Your task to perform on an android device: move an email to a new category in the gmail app Image 0: 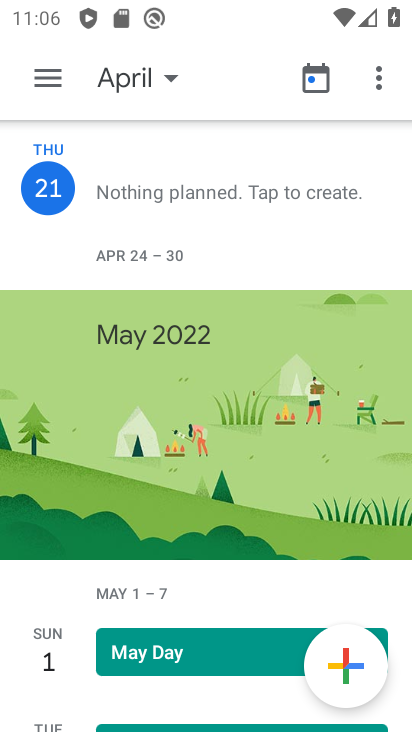
Step 0: press home button
Your task to perform on an android device: move an email to a new category in the gmail app Image 1: 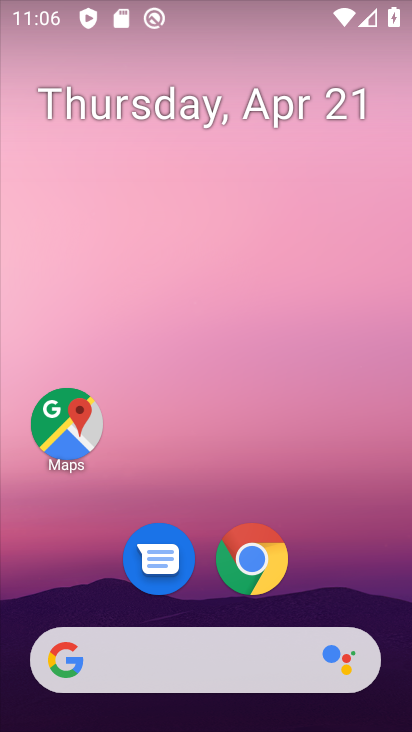
Step 1: drag from (387, 598) to (375, 15)
Your task to perform on an android device: move an email to a new category in the gmail app Image 2: 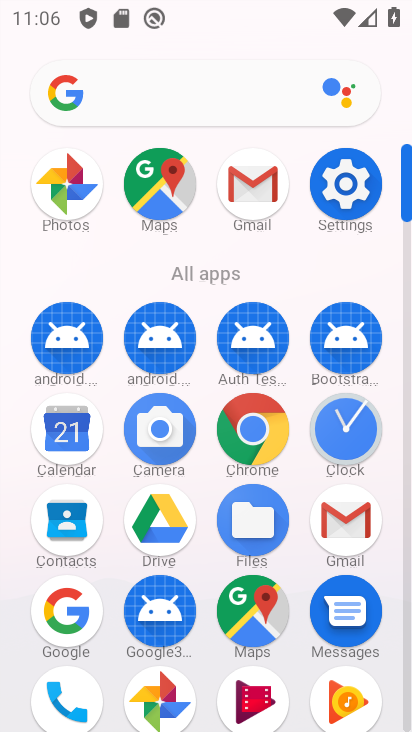
Step 2: click (256, 183)
Your task to perform on an android device: move an email to a new category in the gmail app Image 3: 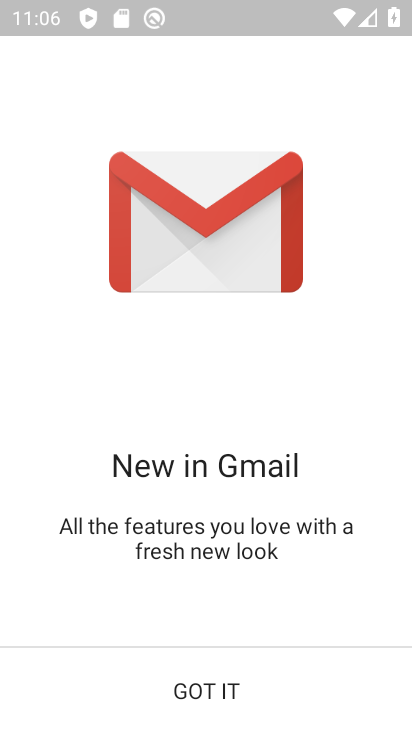
Step 3: click (195, 680)
Your task to perform on an android device: move an email to a new category in the gmail app Image 4: 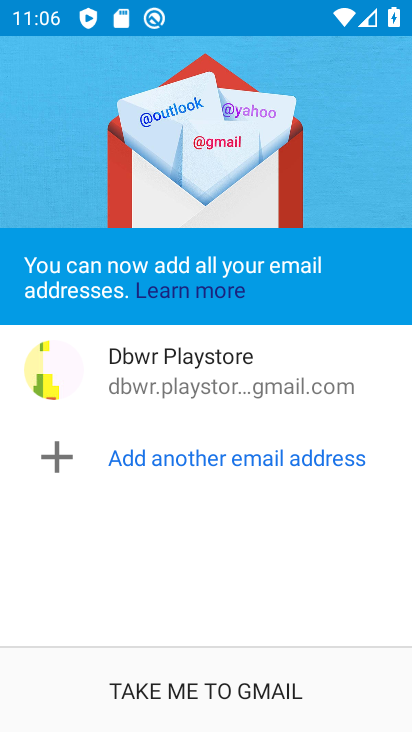
Step 4: click (195, 680)
Your task to perform on an android device: move an email to a new category in the gmail app Image 5: 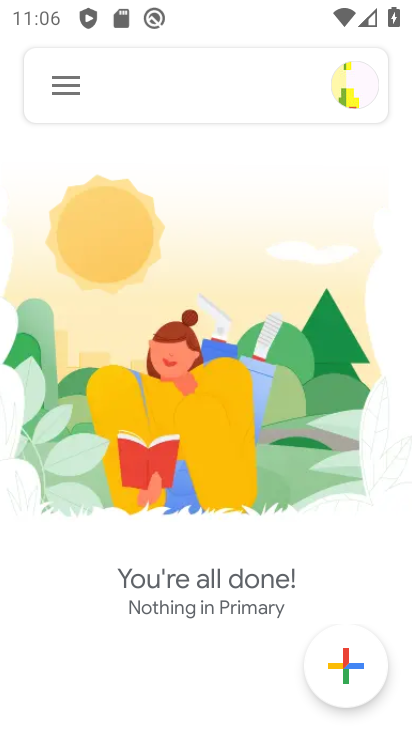
Step 5: click (71, 74)
Your task to perform on an android device: move an email to a new category in the gmail app Image 6: 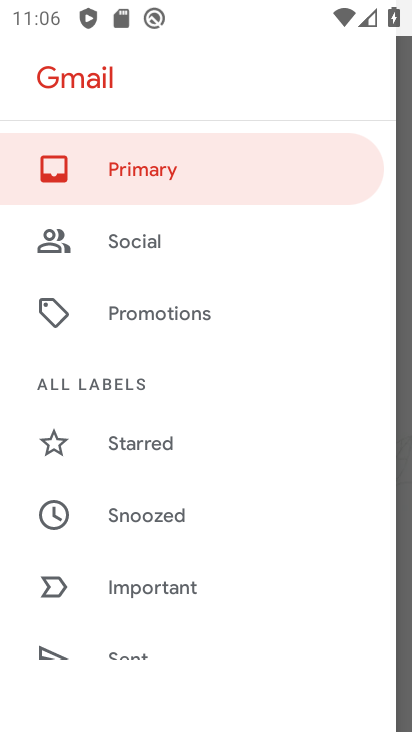
Step 6: drag from (205, 462) to (176, 230)
Your task to perform on an android device: move an email to a new category in the gmail app Image 7: 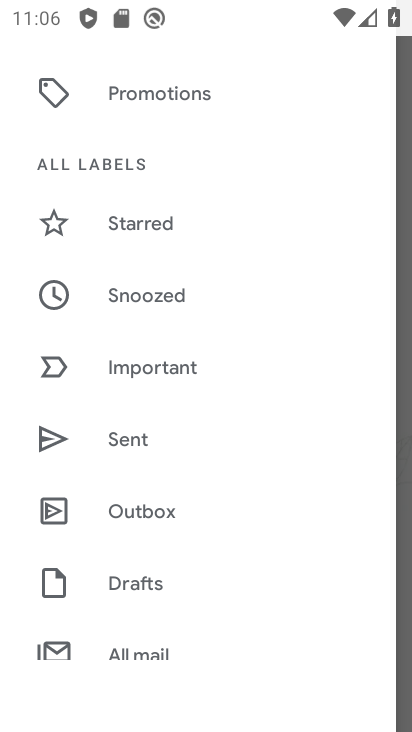
Step 7: click (162, 363)
Your task to perform on an android device: move an email to a new category in the gmail app Image 8: 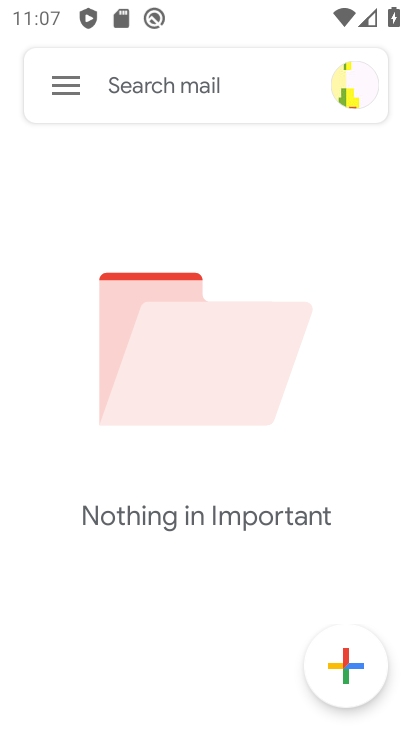
Step 8: drag from (196, 539) to (192, 271)
Your task to perform on an android device: move an email to a new category in the gmail app Image 9: 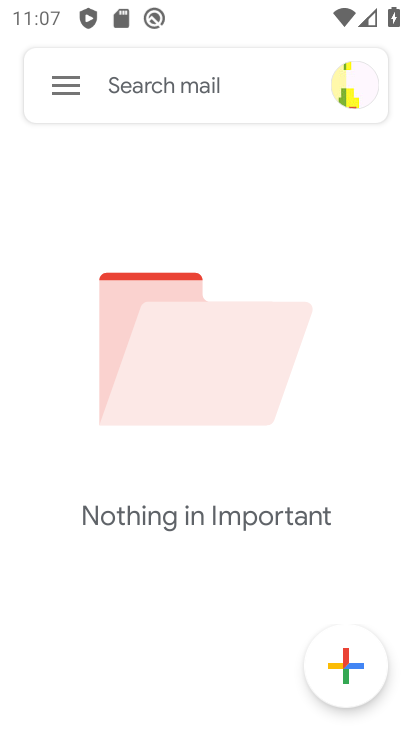
Step 9: click (69, 87)
Your task to perform on an android device: move an email to a new category in the gmail app Image 10: 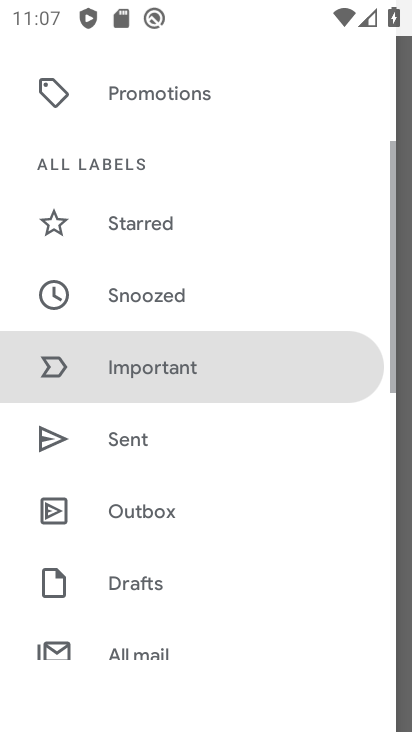
Step 10: drag from (211, 478) to (210, 272)
Your task to perform on an android device: move an email to a new category in the gmail app Image 11: 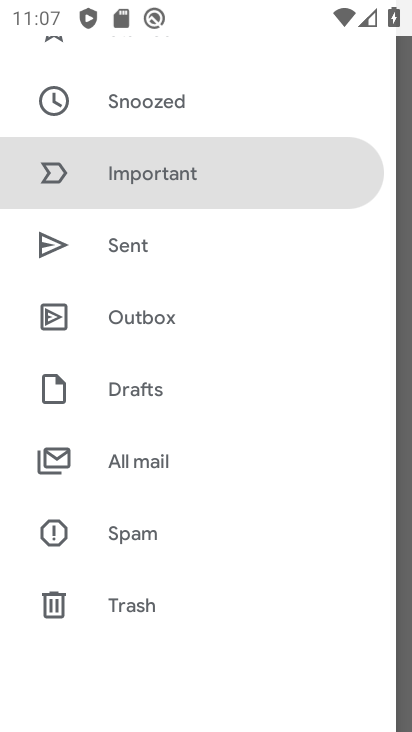
Step 11: click (127, 472)
Your task to perform on an android device: move an email to a new category in the gmail app Image 12: 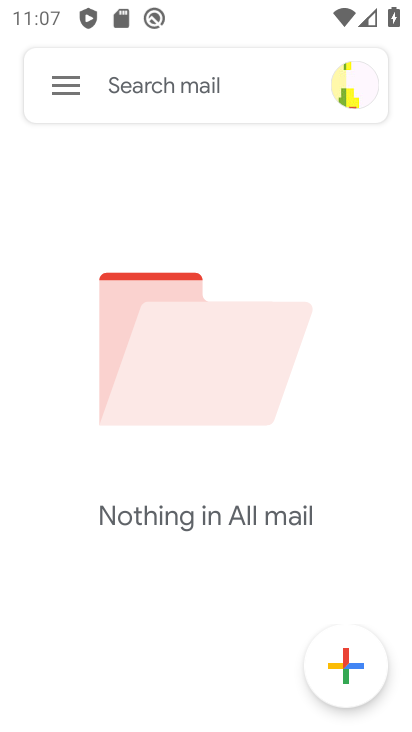
Step 12: task complete